Your task to perform on an android device: turn off data saver in the chrome app Image 0: 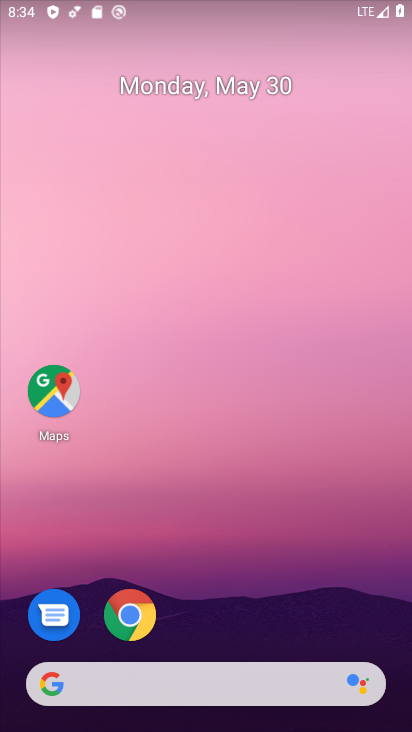
Step 0: click (121, 626)
Your task to perform on an android device: turn off data saver in the chrome app Image 1: 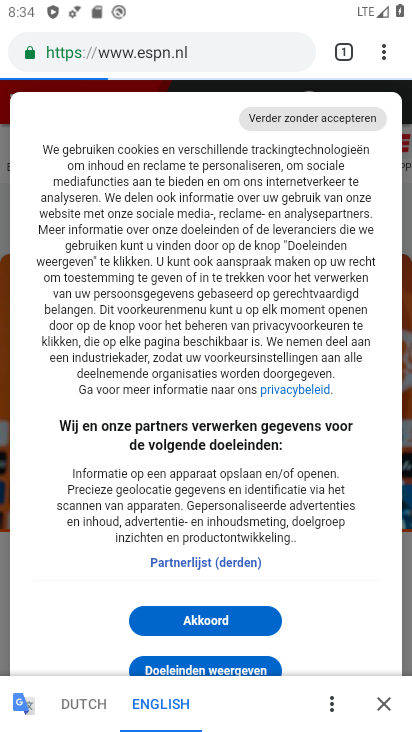
Step 1: click (389, 52)
Your task to perform on an android device: turn off data saver in the chrome app Image 2: 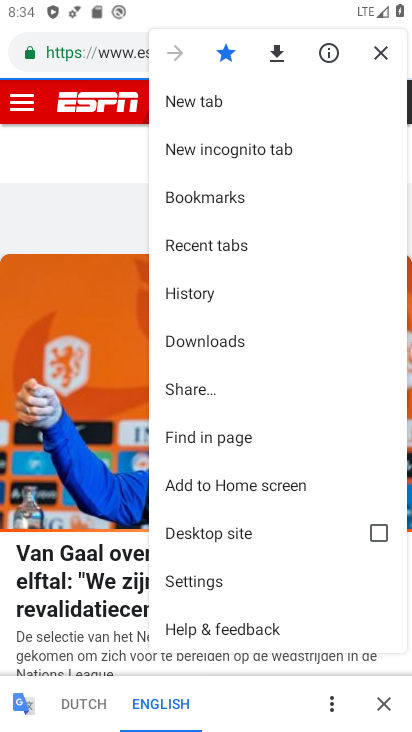
Step 2: click (204, 584)
Your task to perform on an android device: turn off data saver in the chrome app Image 3: 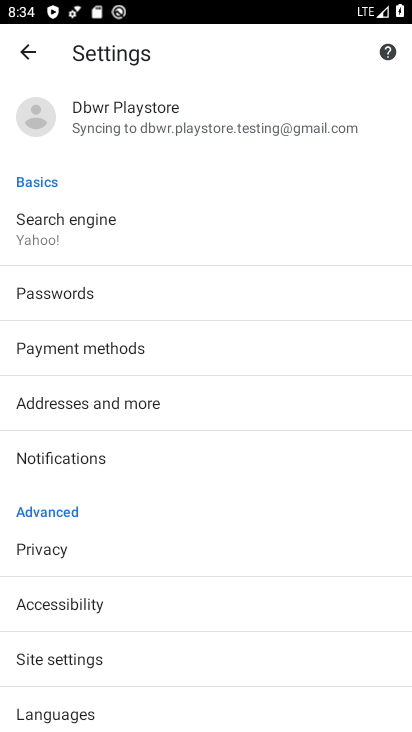
Step 3: drag from (139, 664) to (171, 397)
Your task to perform on an android device: turn off data saver in the chrome app Image 4: 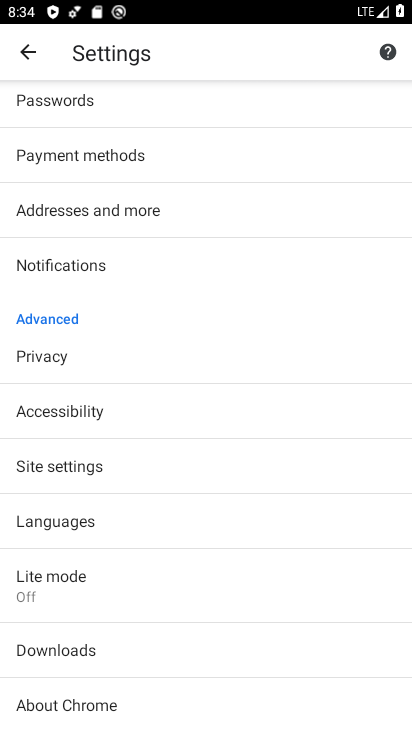
Step 4: click (101, 590)
Your task to perform on an android device: turn off data saver in the chrome app Image 5: 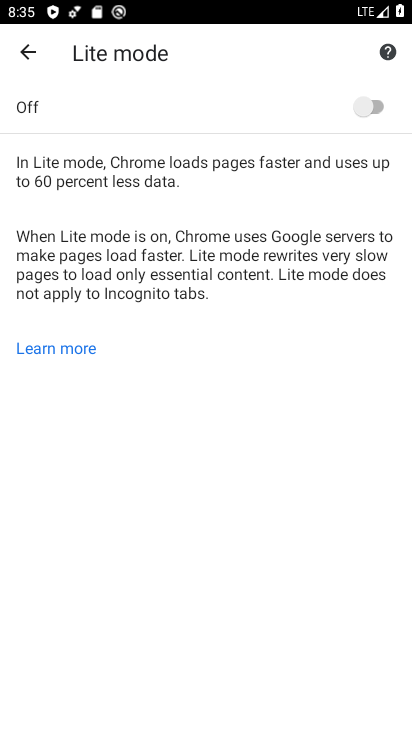
Step 5: task complete